Your task to perform on an android device: turn off picture-in-picture Image 0: 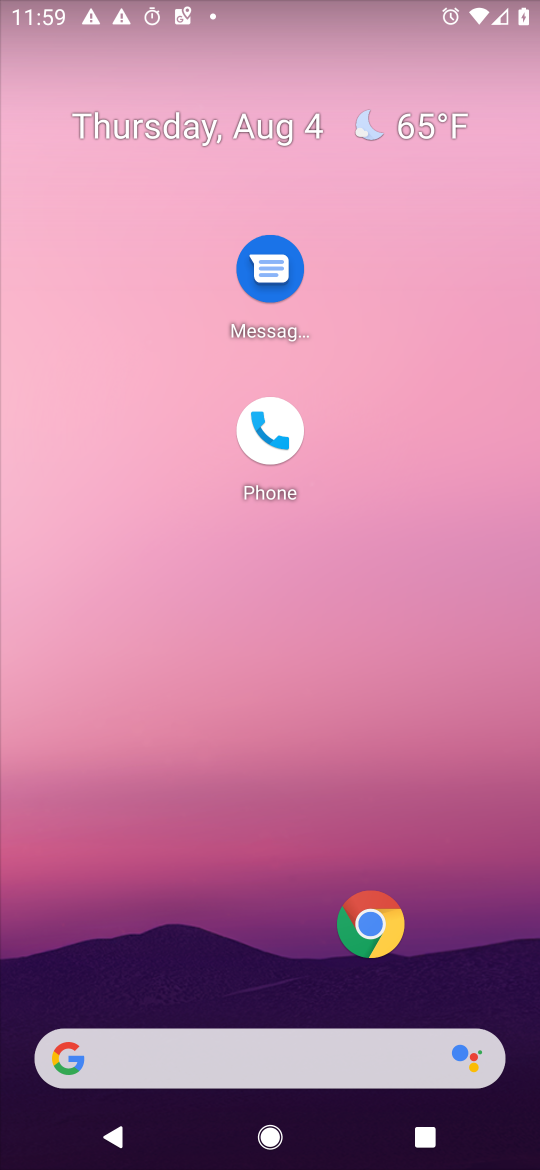
Step 0: drag from (279, 528) to (310, 199)
Your task to perform on an android device: turn off picture-in-picture Image 1: 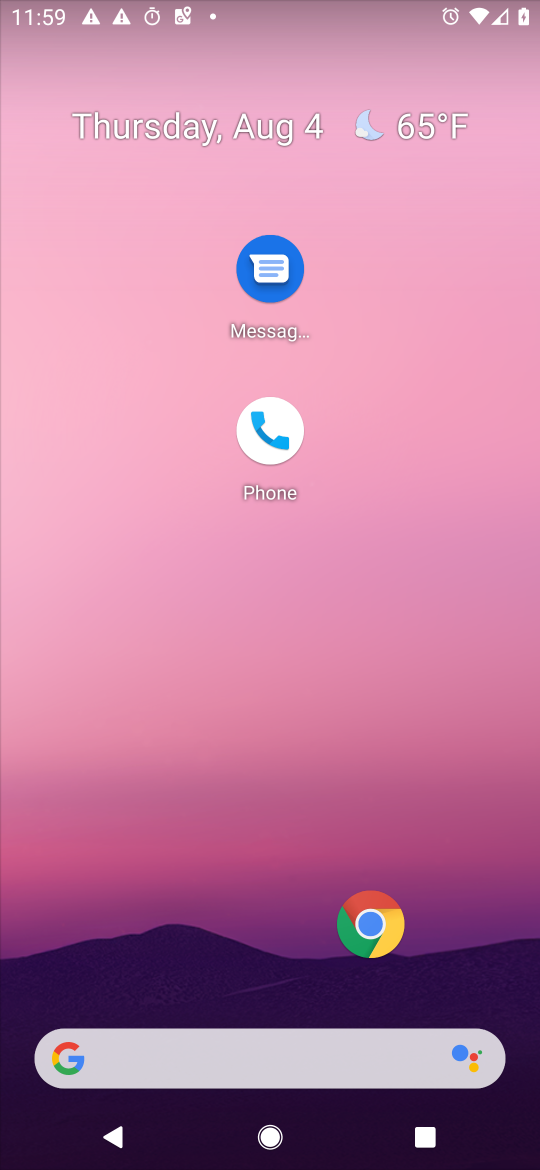
Step 1: drag from (238, 978) to (263, 166)
Your task to perform on an android device: turn off picture-in-picture Image 2: 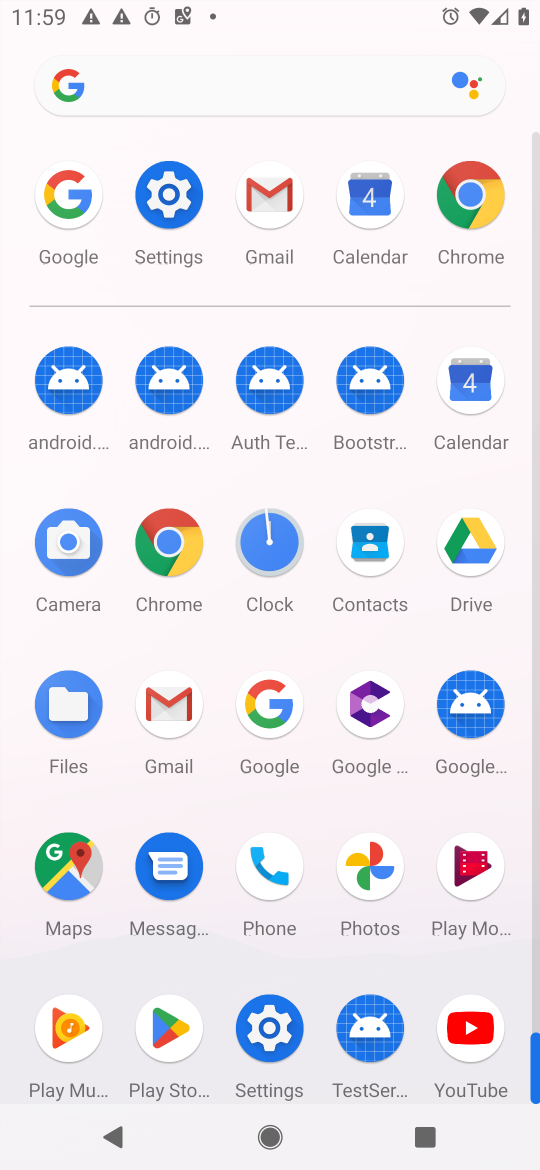
Step 2: click (257, 1033)
Your task to perform on an android device: turn off picture-in-picture Image 3: 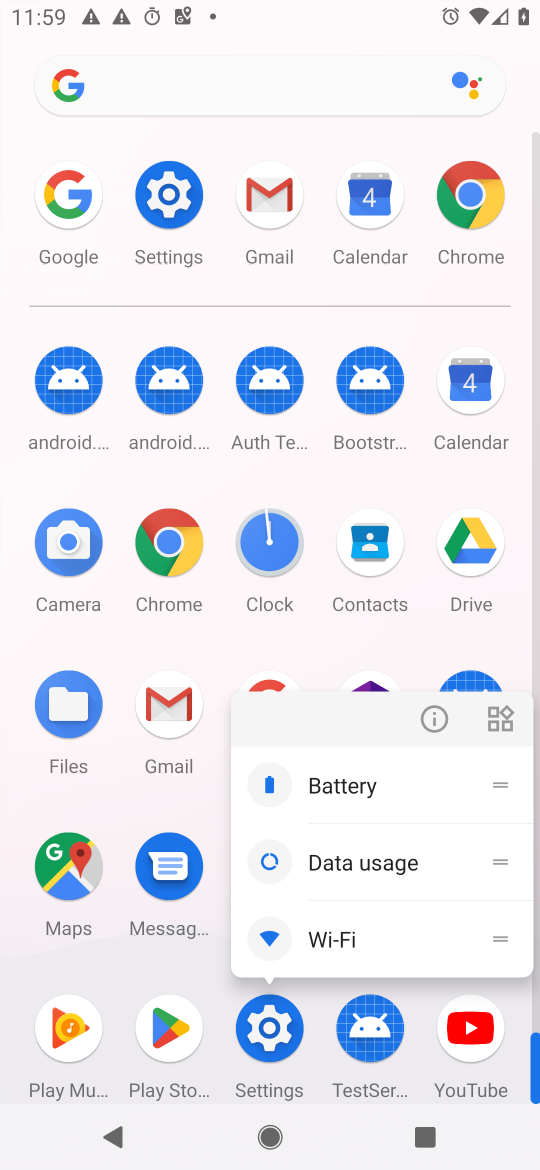
Step 3: click (432, 721)
Your task to perform on an android device: turn off picture-in-picture Image 4: 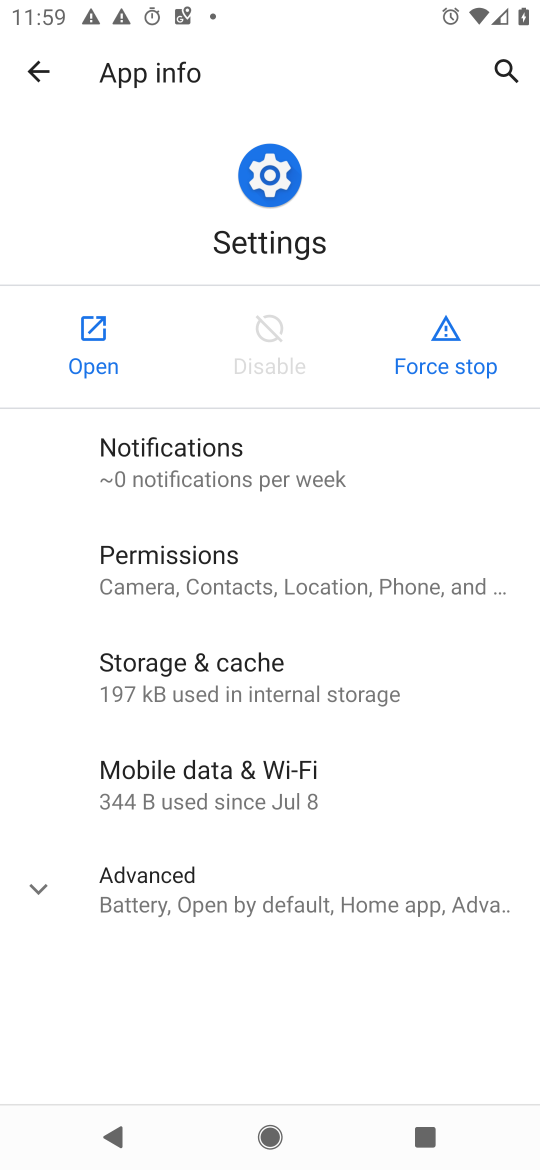
Step 4: click (84, 343)
Your task to perform on an android device: turn off picture-in-picture Image 5: 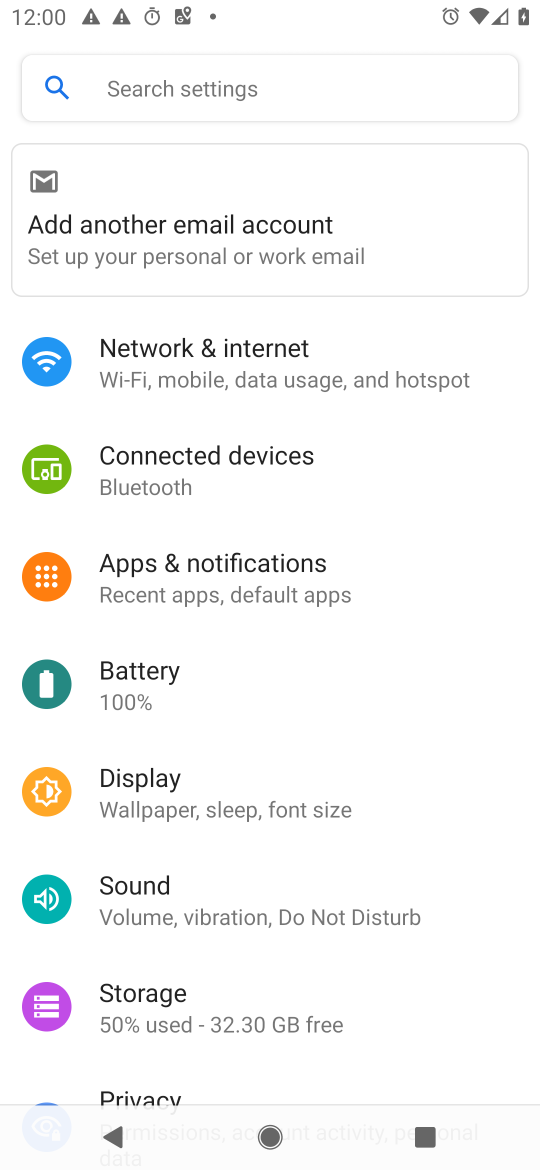
Step 5: drag from (244, 738) to (292, 188)
Your task to perform on an android device: turn off picture-in-picture Image 6: 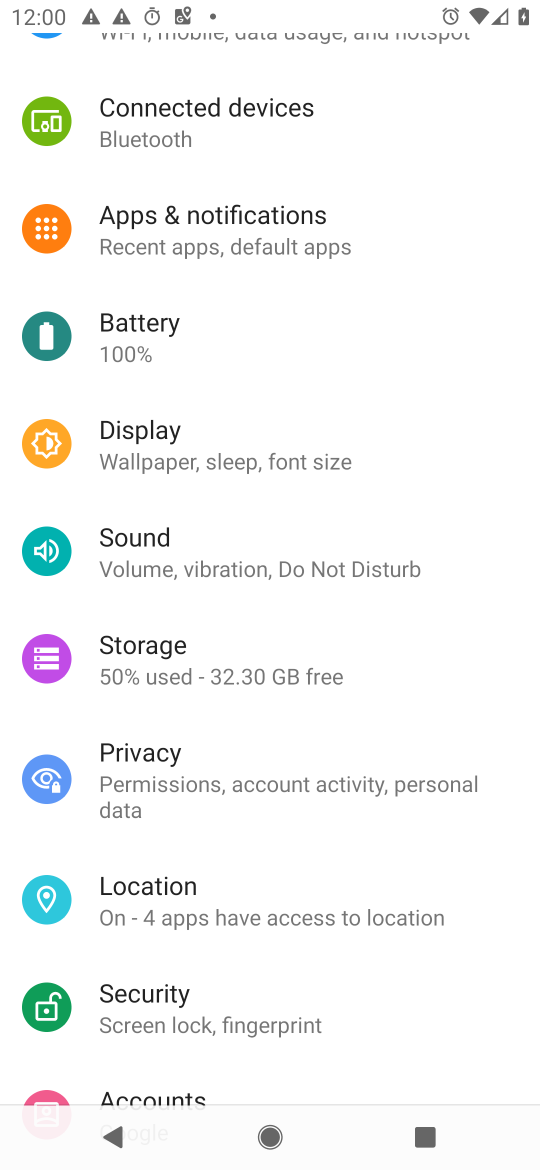
Step 6: drag from (266, 776) to (316, 388)
Your task to perform on an android device: turn off picture-in-picture Image 7: 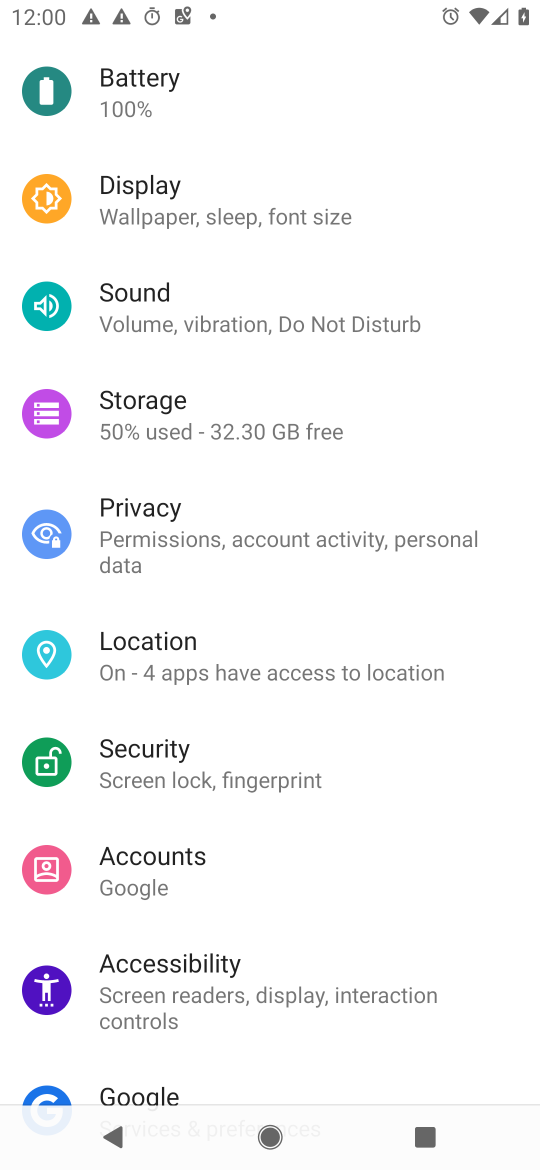
Step 7: drag from (178, 1026) to (352, 285)
Your task to perform on an android device: turn off picture-in-picture Image 8: 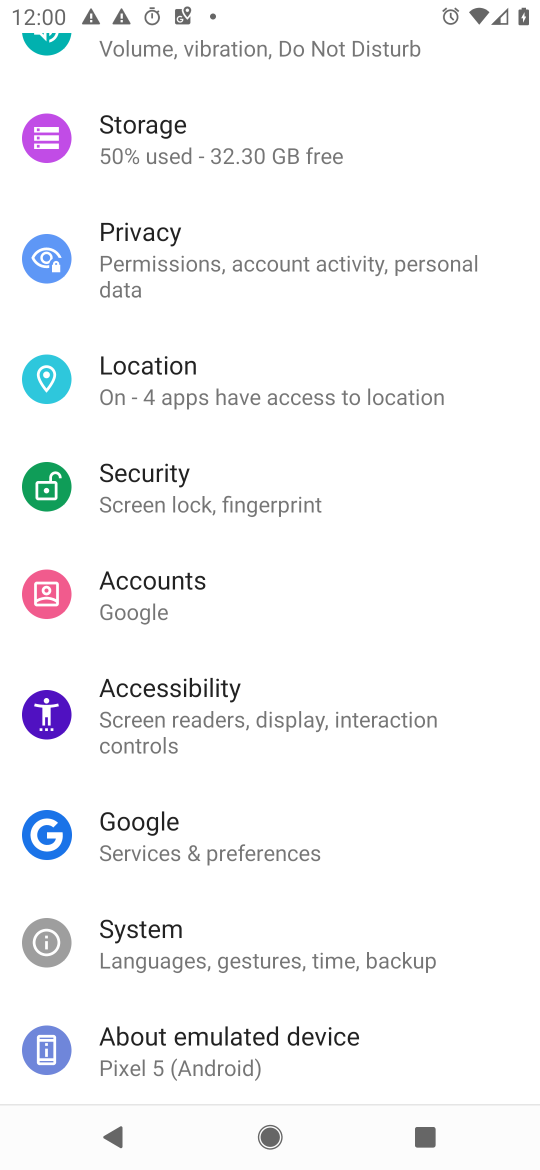
Step 8: drag from (224, 226) to (197, 1051)
Your task to perform on an android device: turn off picture-in-picture Image 9: 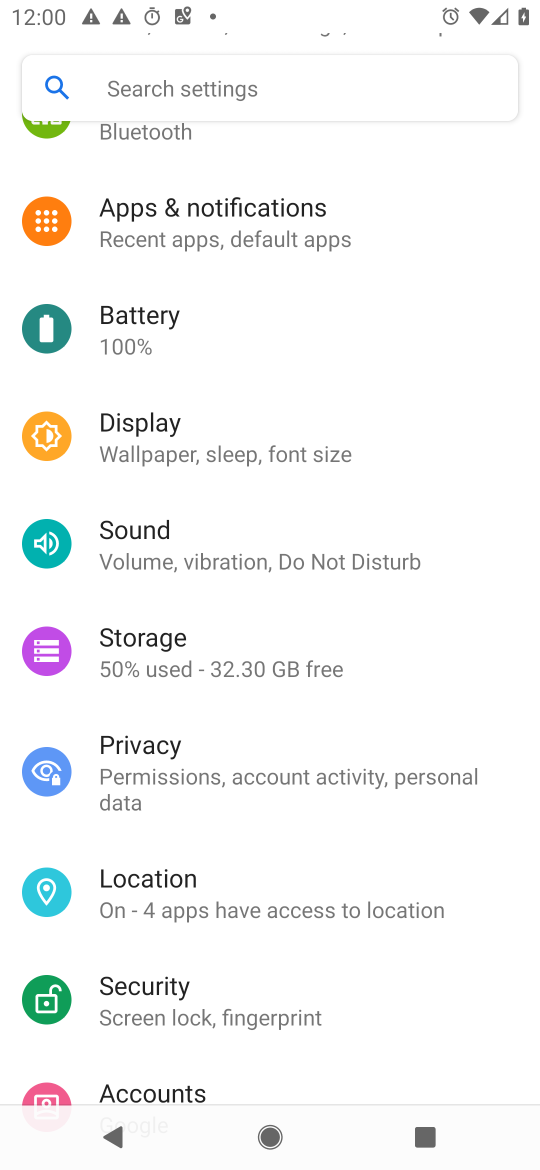
Step 9: click (207, 239)
Your task to perform on an android device: turn off picture-in-picture Image 10: 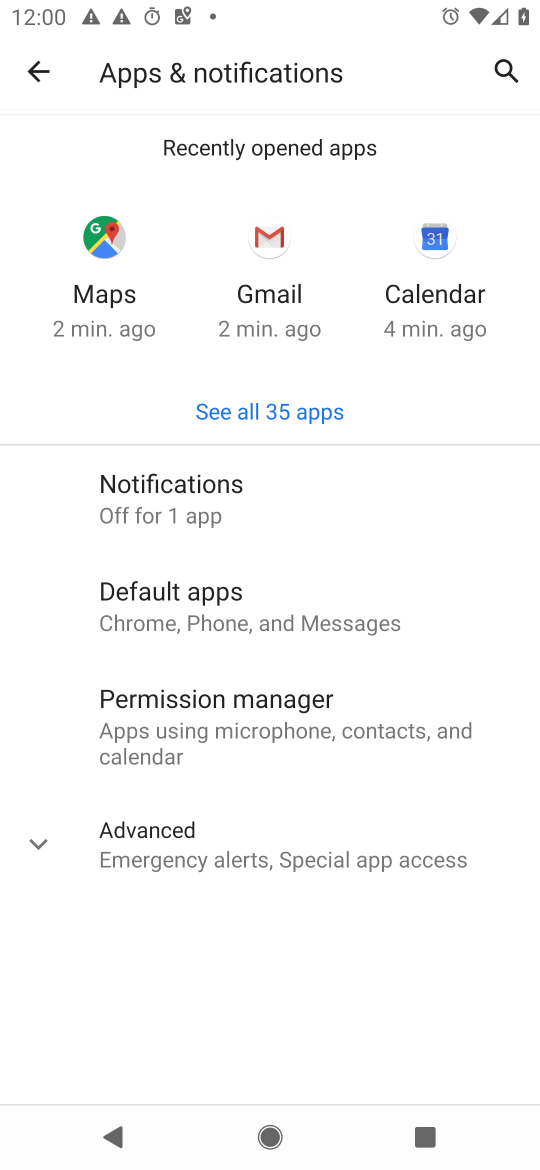
Step 10: click (223, 871)
Your task to perform on an android device: turn off picture-in-picture Image 11: 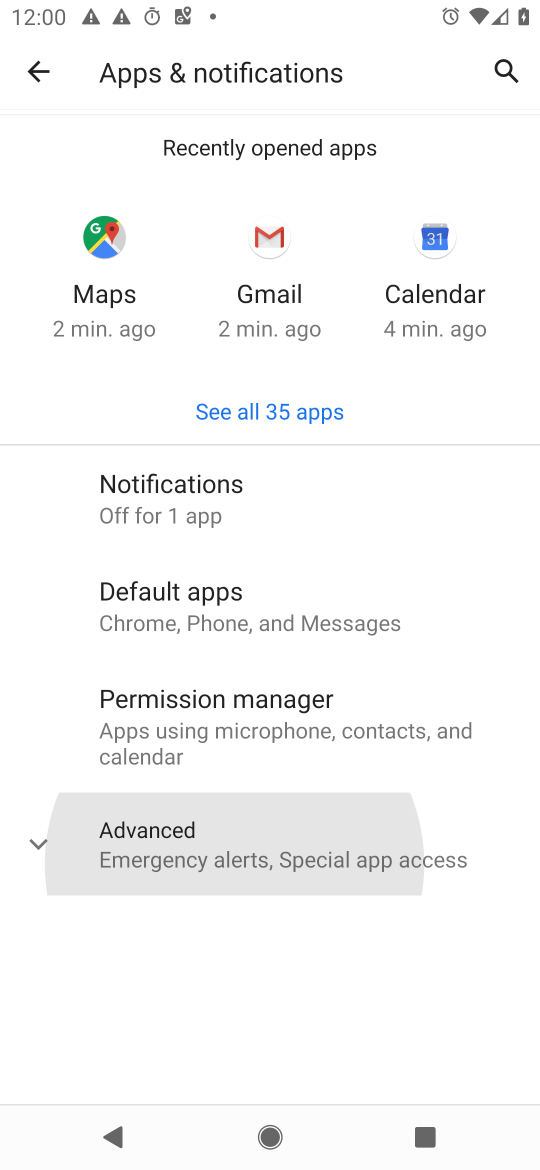
Step 11: drag from (204, 863) to (323, 480)
Your task to perform on an android device: turn off picture-in-picture Image 12: 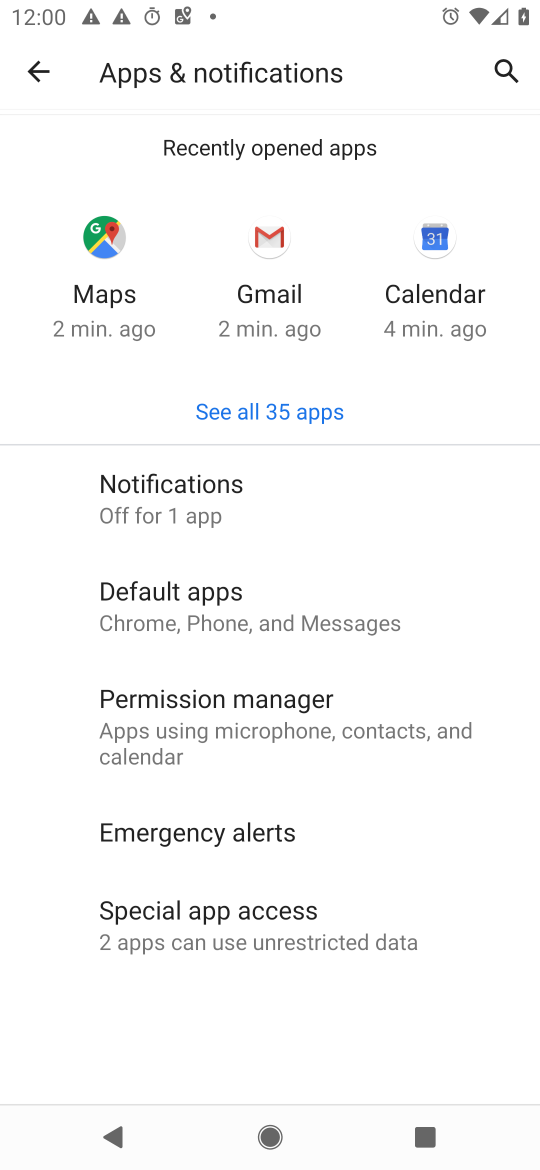
Step 12: click (152, 937)
Your task to perform on an android device: turn off picture-in-picture Image 13: 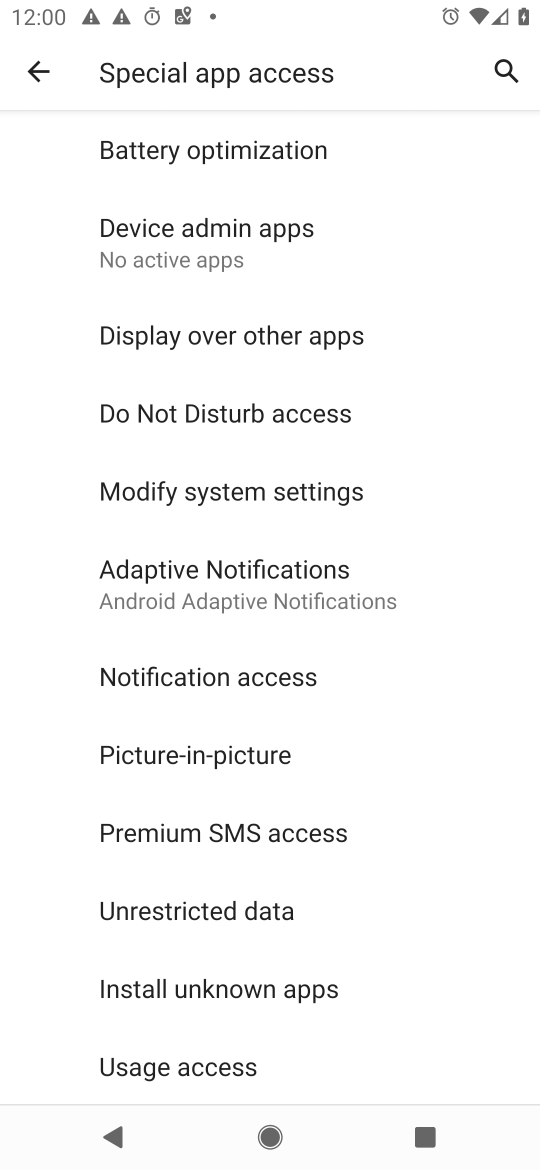
Step 13: click (190, 781)
Your task to perform on an android device: turn off picture-in-picture Image 14: 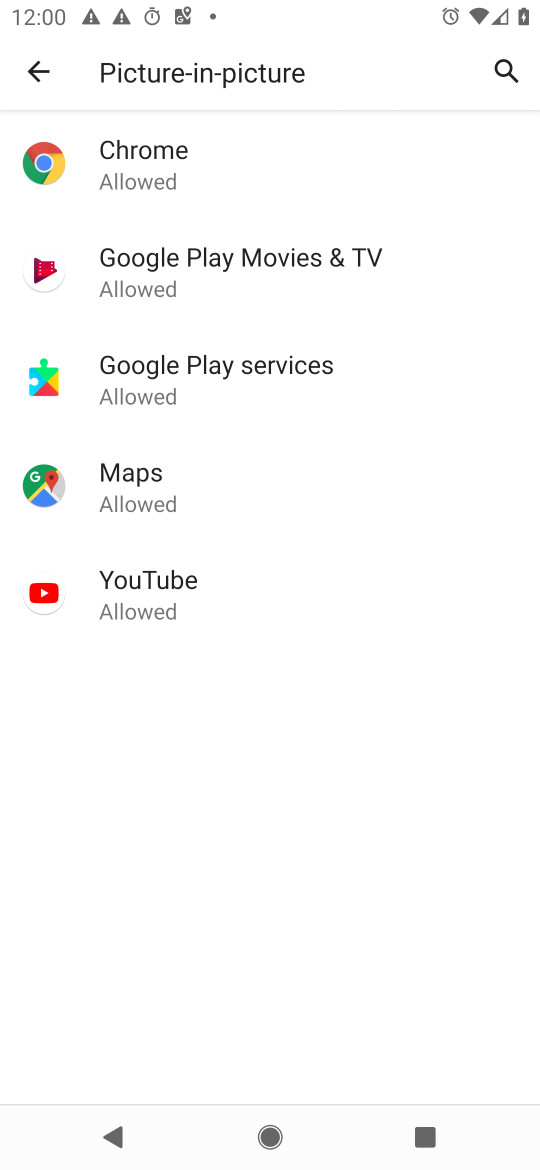
Step 14: click (214, 126)
Your task to perform on an android device: turn off picture-in-picture Image 15: 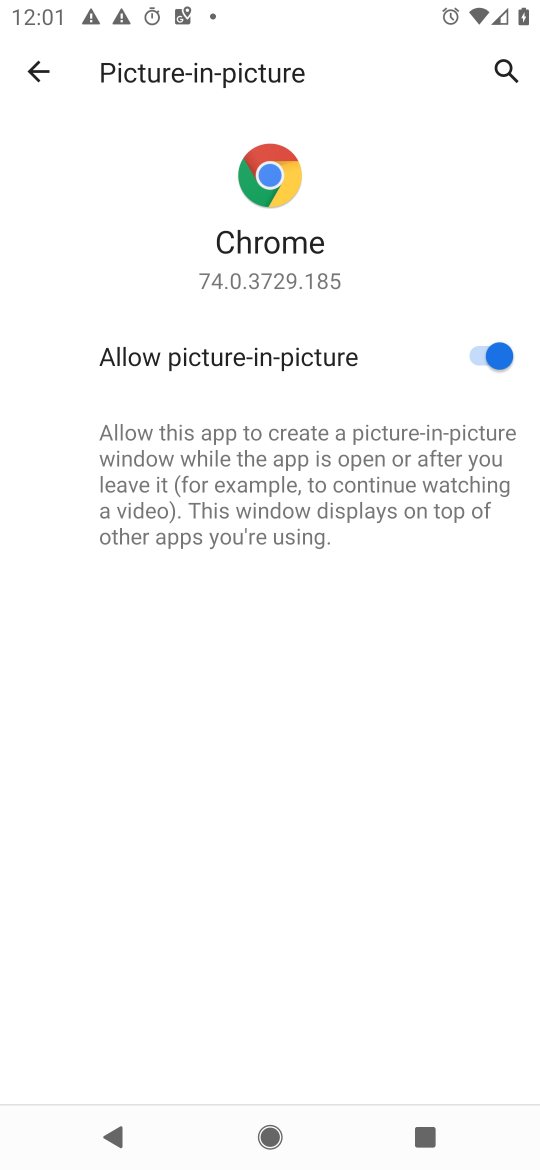
Step 15: click (495, 346)
Your task to perform on an android device: turn off picture-in-picture Image 16: 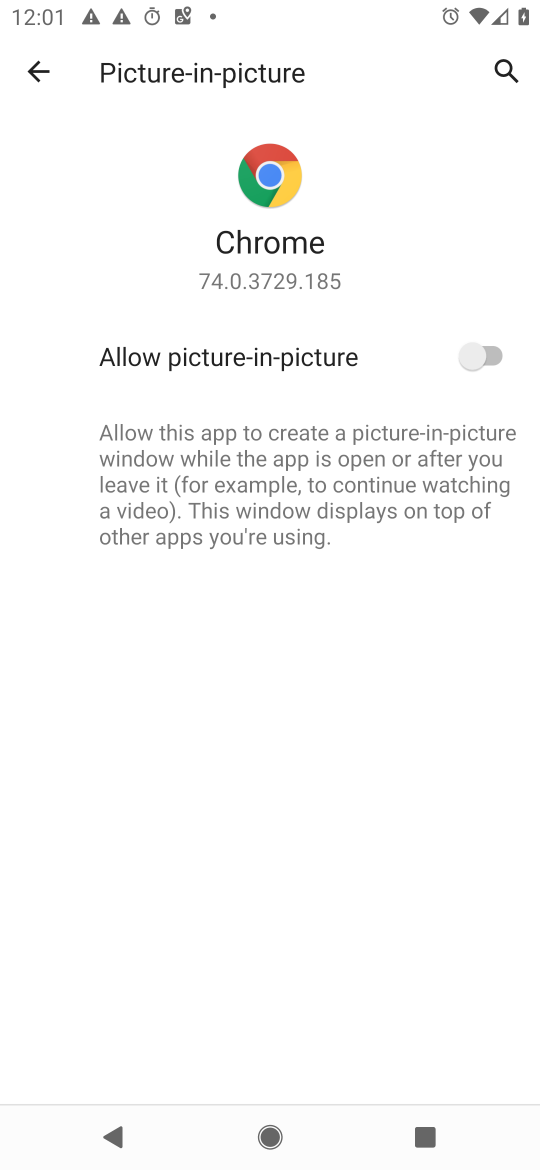
Step 16: task complete